Your task to perform on an android device: star an email in the gmail app Image 0: 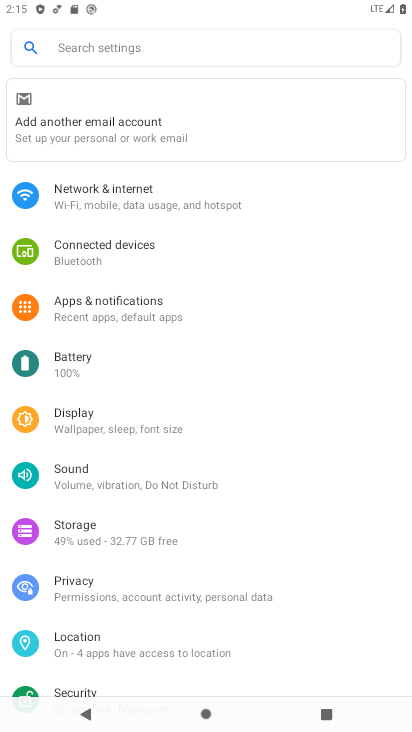
Step 0: press home button
Your task to perform on an android device: star an email in the gmail app Image 1: 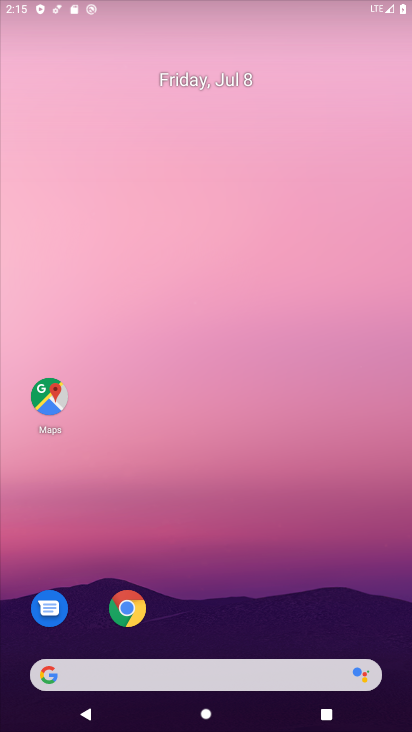
Step 1: drag from (200, 624) to (181, 170)
Your task to perform on an android device: star an email in the gmail app Image 2: 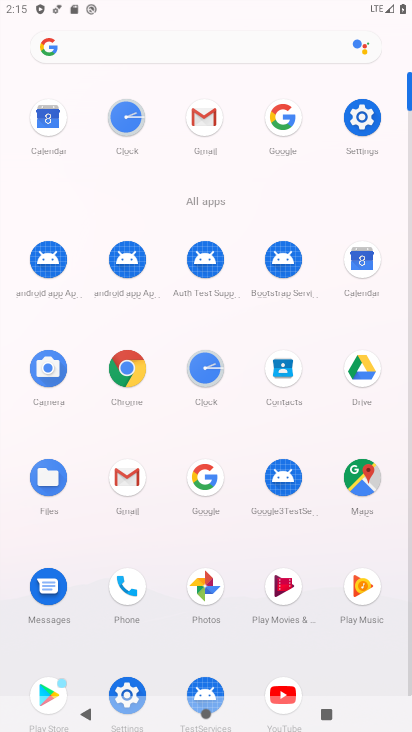
Step 2: click (206, 116)
Your task to perform on an android device: star an email in the gmail app Image 3: 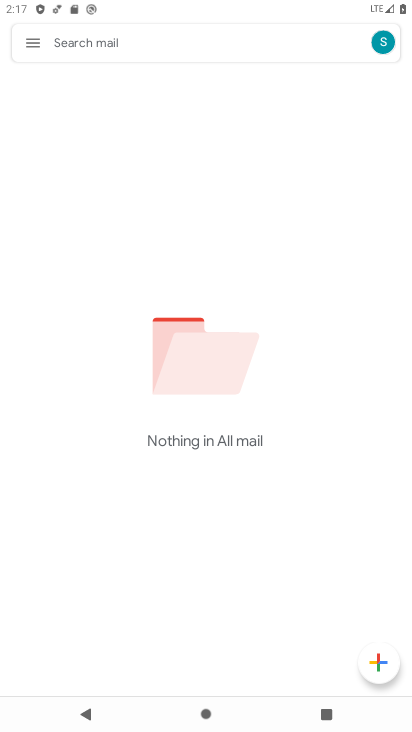
Step 3: task complete